Your task to perform on an android device: turn notification dots off Image 0: 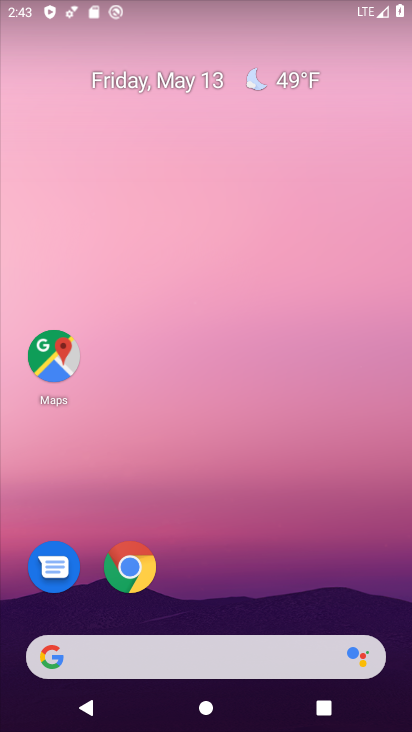
Step 0: drag from (228, 624) to (249, 45)
Your task to perform on an android device: turn notification dots off Image 1: 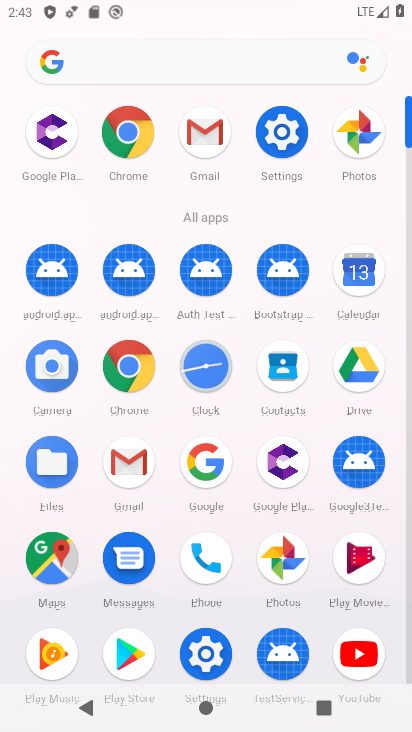
Step 1: click (213, 656)
Your task to perform on an android device: turn notification dots off Image 2: 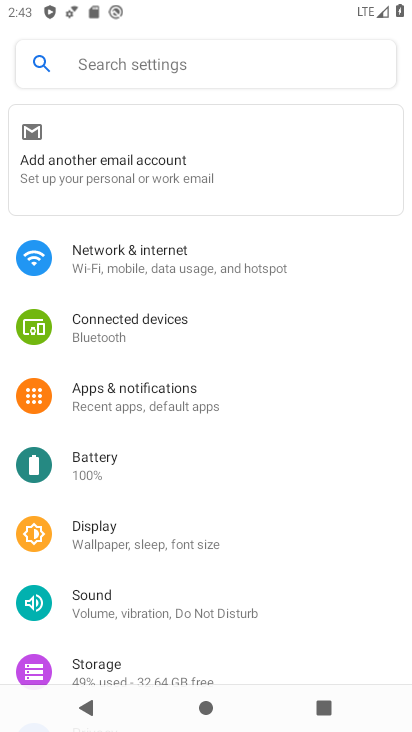
Step 2: click (162, 396)
Your task to perform on an android device: turn notification dots off Image 3: 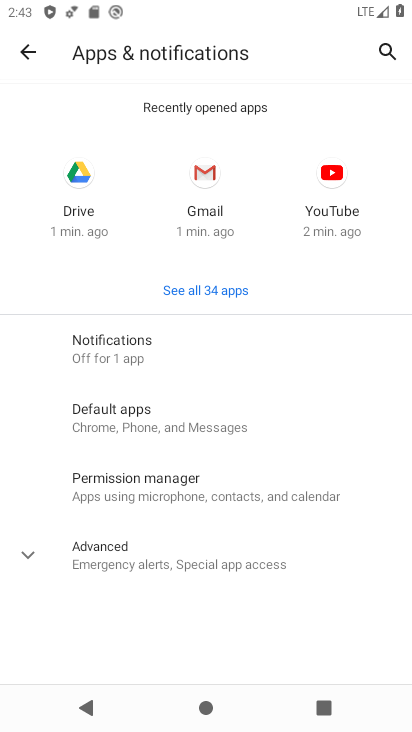
Step 3: click (142, 547)
Your task to perform on an android device: turn notification dots off Image 4: 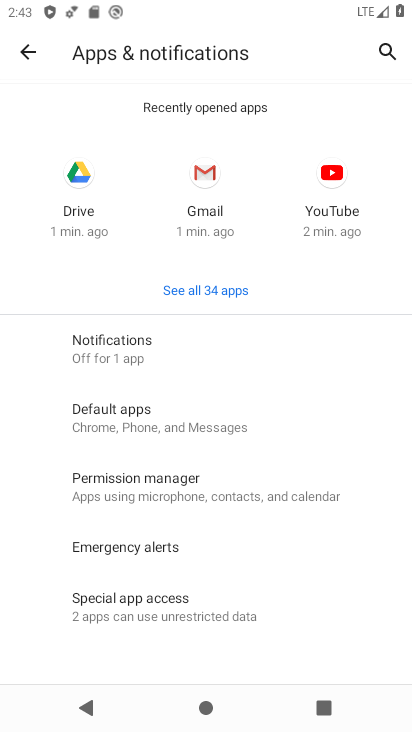
Step 4: drag from (142, 547) to (128, 167)
Your task to perform on an android device: turn notification dots off Image 5: 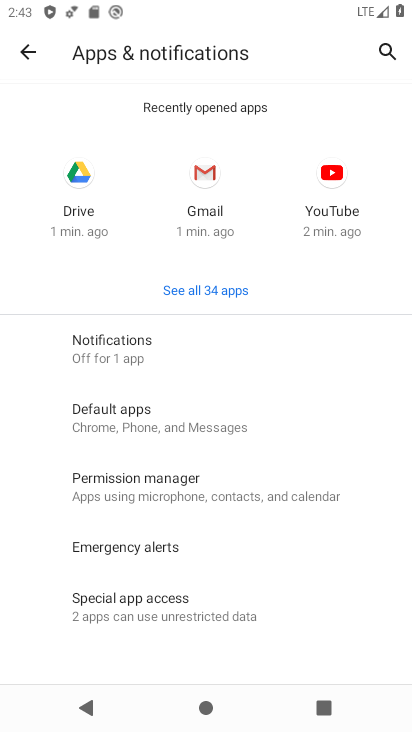
Step 5: click (147, 351)
Your task to perform on an android device: turn notification dots off Image 6: 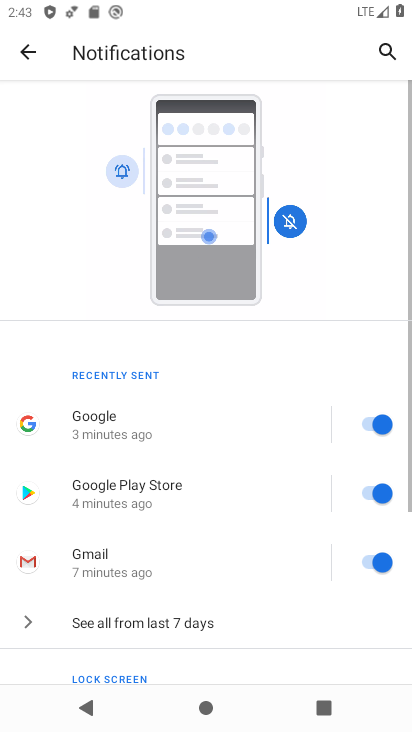
Step 6: drag from (217, 596) to (200, 211)
Your task to perform on an android device: turn notification dots off Image 7: 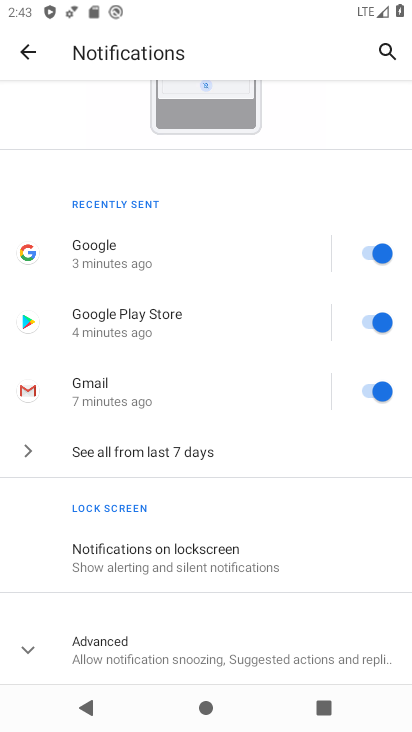
Step 7: click (177, 651)
Your task to perform on an android device: turn notification dots off Image 8: 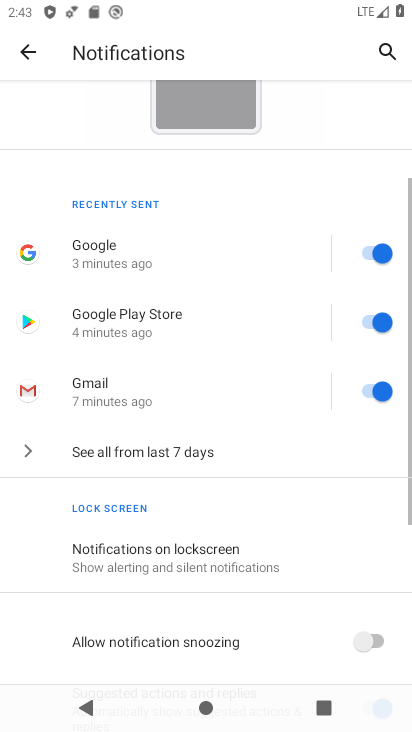
Step 8: task complete